Your task to perform on an android device: Open location settings Image 0: 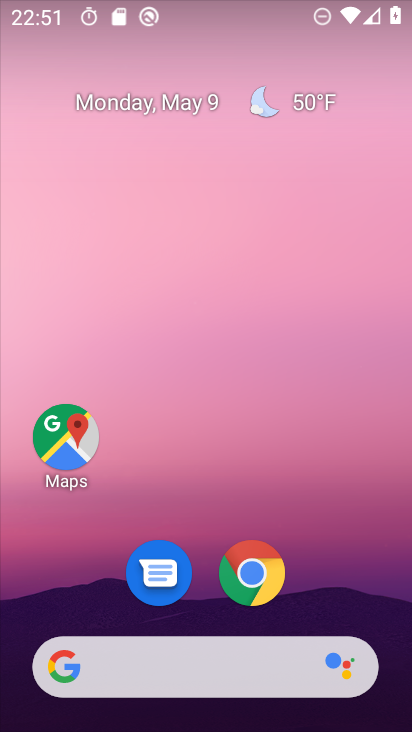
Step 0: drag from (342, 581) to (260, 133)
Your task to perform on an android device: Open location settings Image 1: 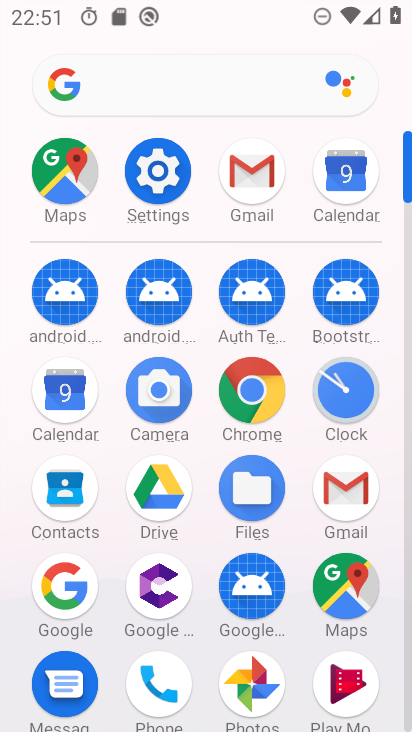
Step 1: click (170, 161)
Your task to perform on an android device: Open location settings Image 2: 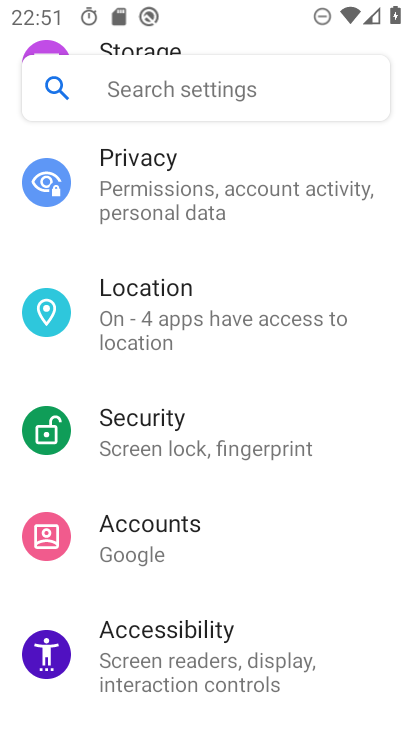
Step 2: click (236, 313)
Your task to perform on an android device: Open location settings Image 3: 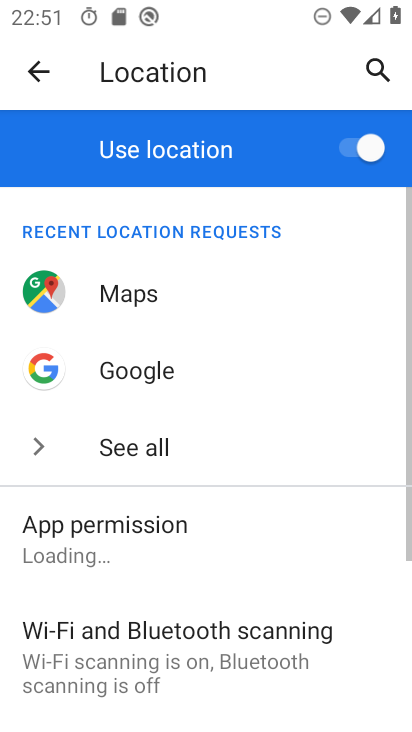
Step 3: task complete